Your task to perform on an android device: turn notification dots off Image 0: 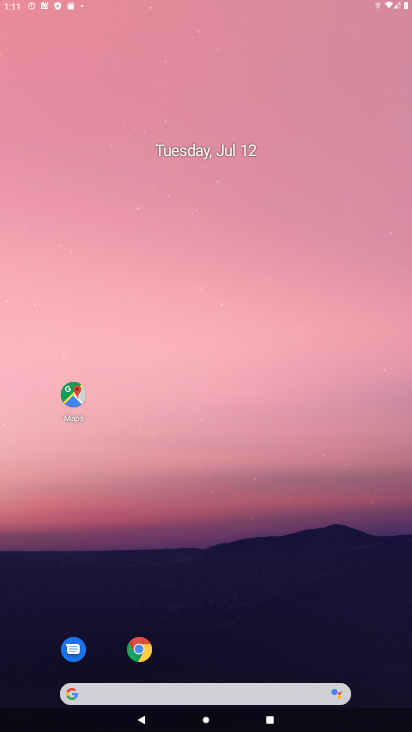
Step 0: drag from (181, 646) to (125, 78)
Your task to perform on an android device: turn notification dots off Image 1: 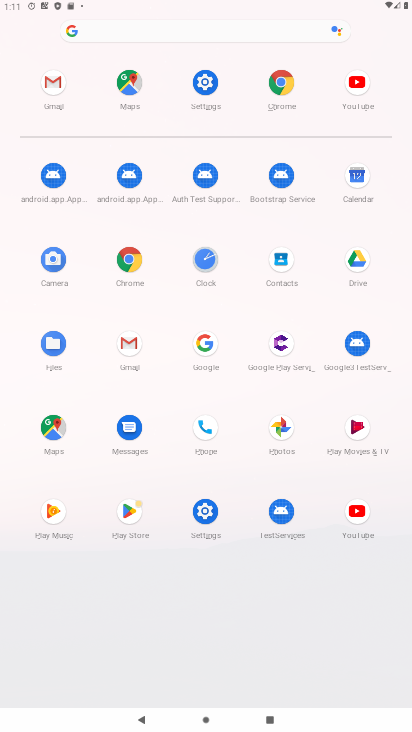
Step 1: press home button
Your task to perform on an android device: turn notification dots off Image 2: 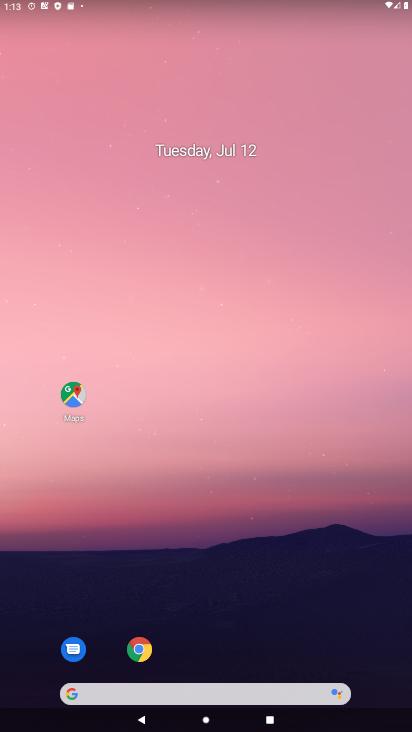
Step 2: drag from (333, 670) to (224, 1)
Your task to perform on an android device: turn notification dots off Image 3: 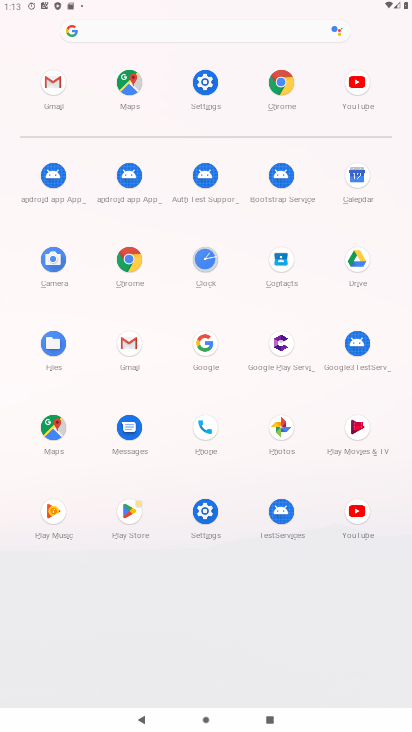
Step 3: click (214, 89)
Your task to perform on an android device: turn notification dots off Image 4: 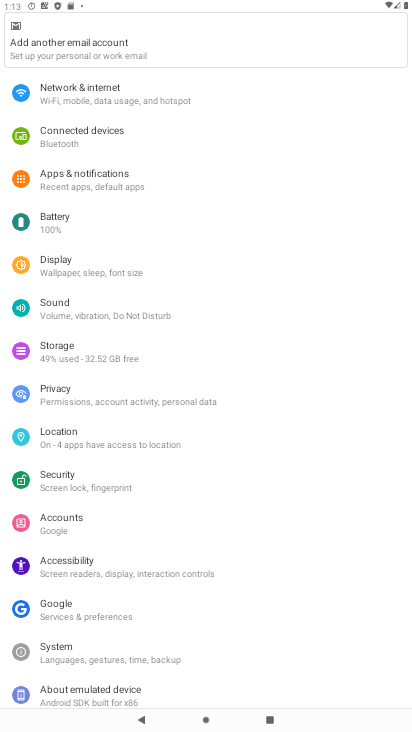
Step 4: click (101, 168)
Your task to perform on an android device: turn notification dots off Image 5: 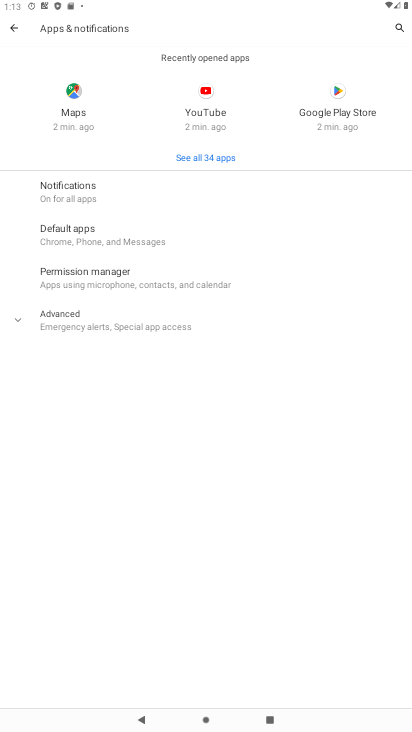
Step 5: click (90, 189)
Your task to perform on an android device: turn notification dots off Image 6: 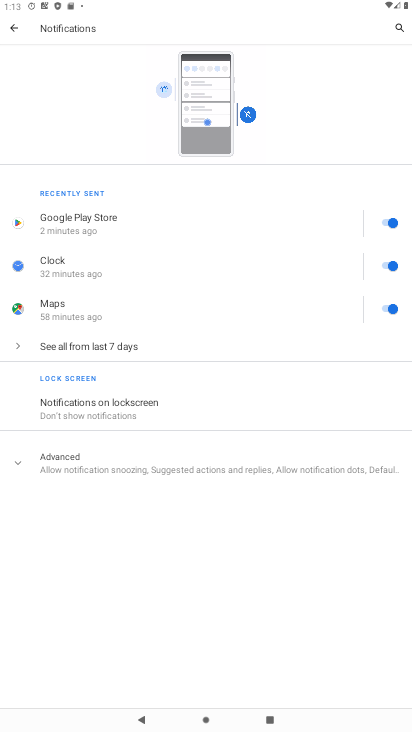
Step 6: click (74, 471)
Your task to perform on an android device: turn notification dots off Image 7: 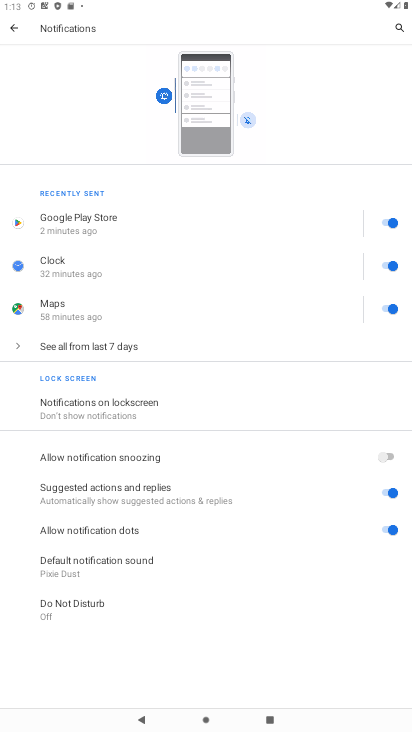
Step 7: click (260, 527)
Your task to perform on an android device: turn notification dots off Image 8: 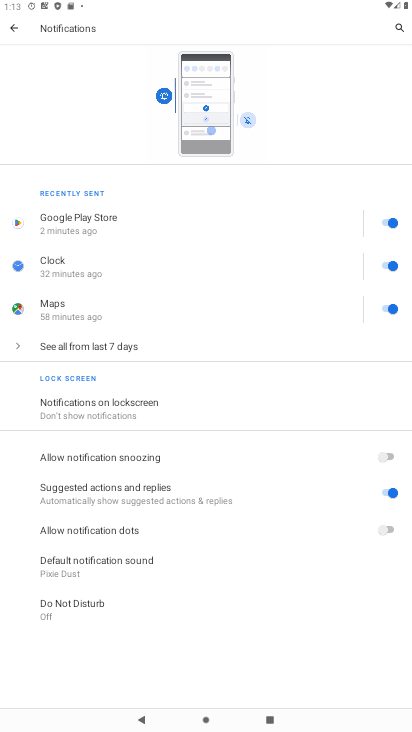
Step 8: task complete